Your task to perform on an android device: toggle sleep mode Image 0: 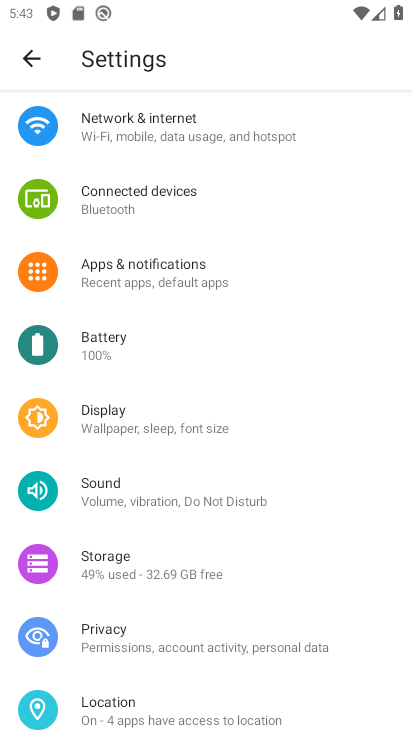
Step 0: drag from (223, 169) to (254, 580)
Your task to perform on an android device: toggle sleep mode Image 1: 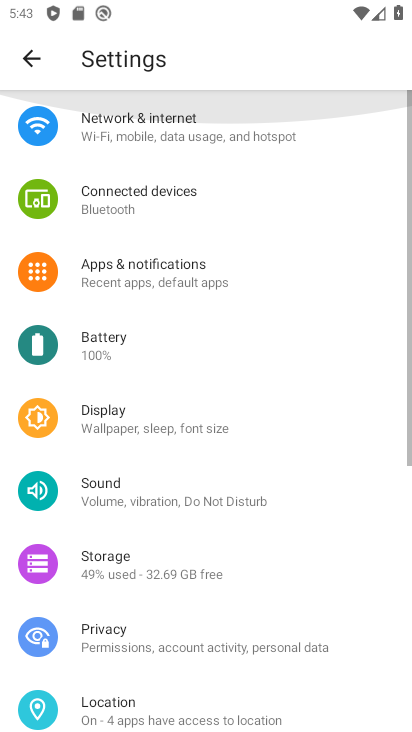
Step 1: click (166, 414)
Your task to perform on an android device: toggle sleep mode Image 2: 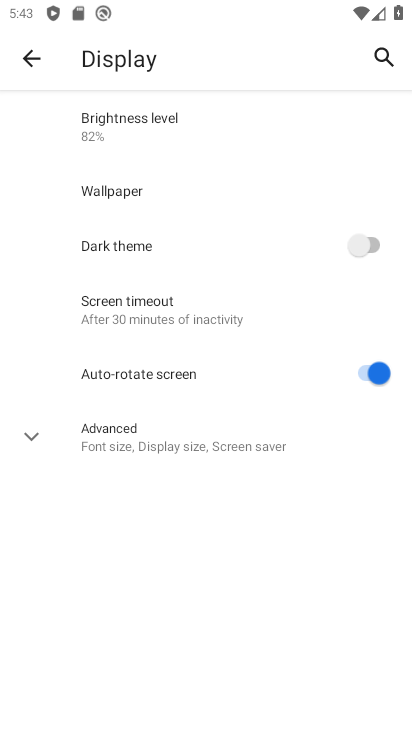
Step 2: task complete